Your task to perform on an android device: Open calendar and show me the first week of next month Image 0: 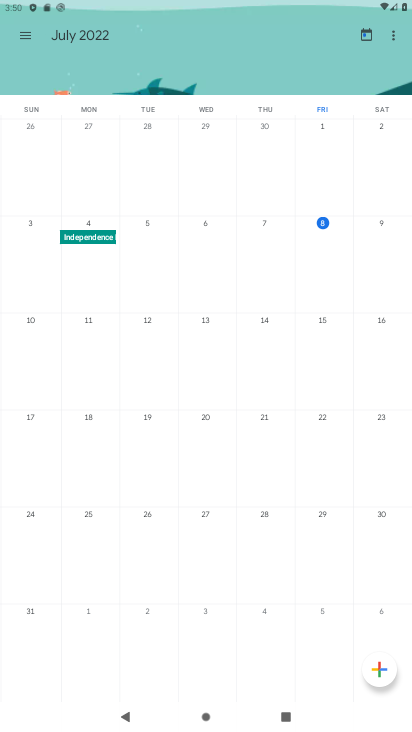
Step 0: click (30, 43)
Your task to perform on an android device: Open calendar and show me the first week of next month Image 1: 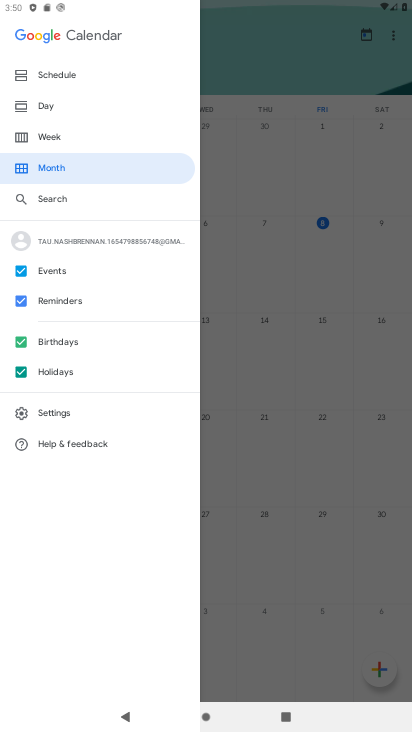
Step 1: click (100, 142)
Your task to perform on an android device: Open calendar and show me the first week of next month Image 2: 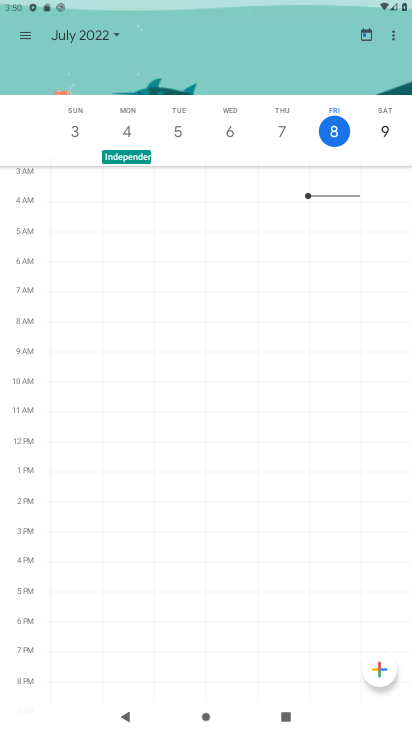
Step 2: click (97, 27)
Your task to perform on an android device: Open calendar and show me the first week of next month Image 3: 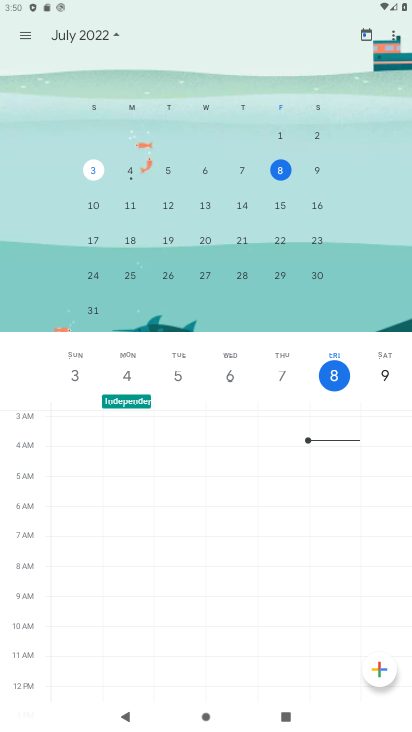
Step 3: drag from (336, 231) to (104, 220)
Your task to perform on an android device: Open calendar and show me the first week of next month Image 4: 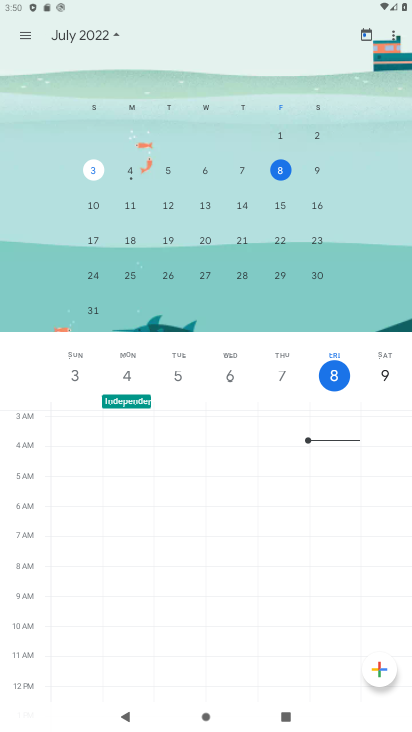
Step 4: drag from (386, 199) to (37, 193)
Your task to perform on an android device: Open calendar and show me the first week of next month Image 5: 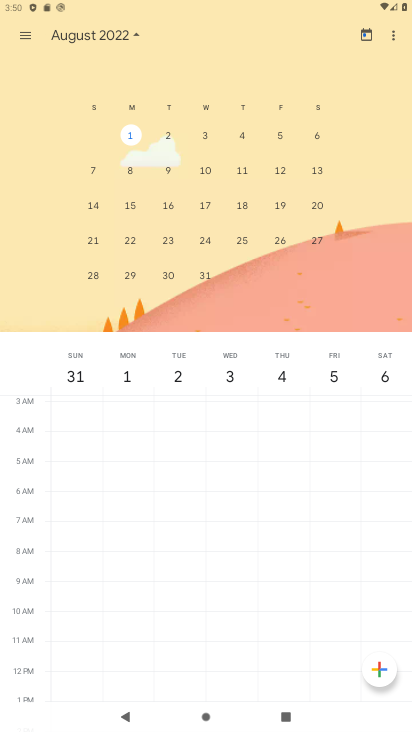
Step 5: click (86, 166)
Your task to perform on an android device: Open calendar and show me the first week of next month Image 6: 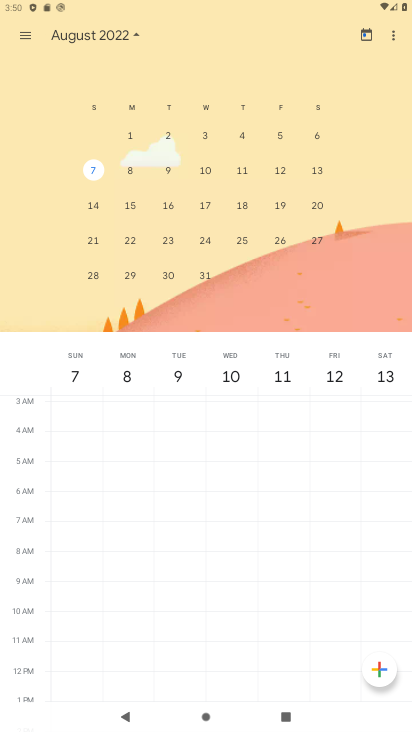
Step 6: click (135, 36)
Your task to perform on an android device: Open calendar and show me the first week of next month Image 7: 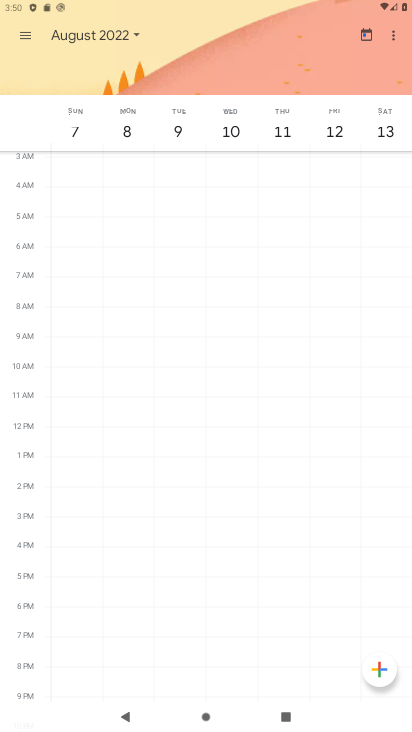
Step 7: task complete